Your task to perform on an android device: Go to sound settings Image 0: 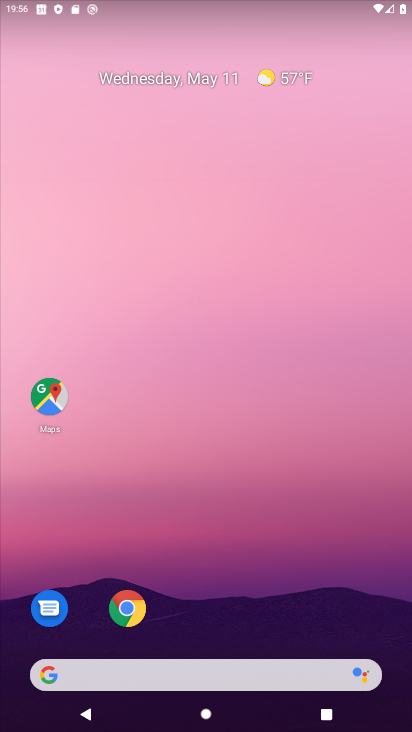
Step 0: drag from (286, 576) to (253, 71)
Your task to perform on an android device: Go to sound settings Image 1: 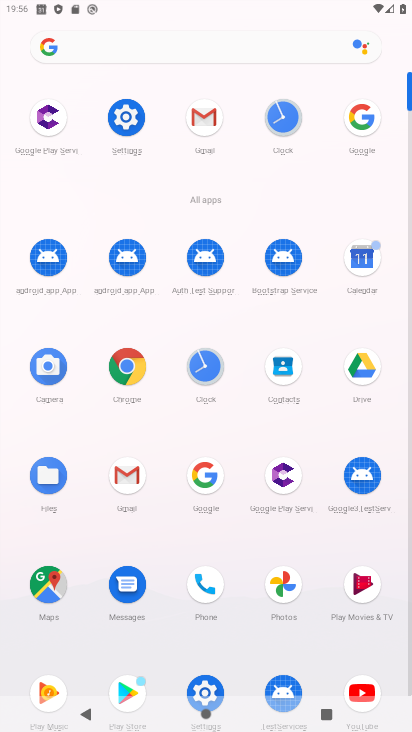
Step 1: click (127, 131)
Your task to perform on an android device: Go to sound settings Image 2: 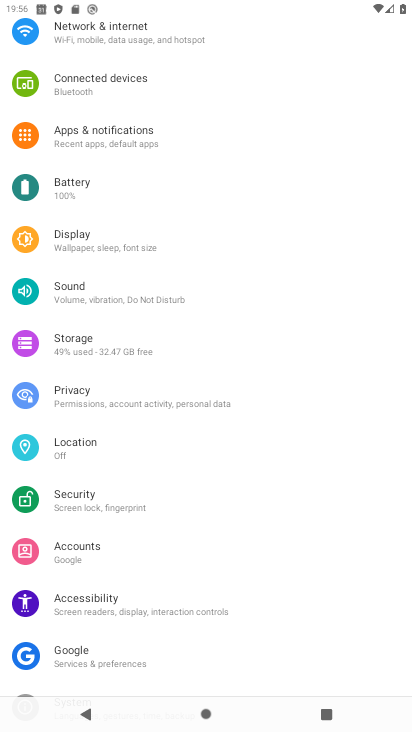
Step 2: click (105, 282)
Your task to perform on an android device: Go to sound settings Image 3: 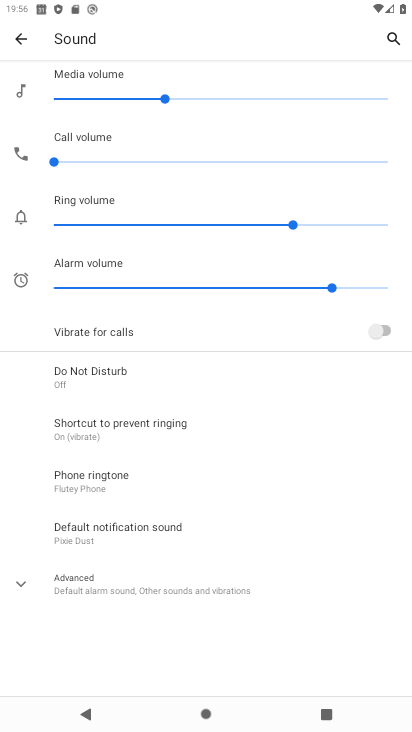
Step 3: task complete